Your task to perform on an android device: Empty the shopping cart on ebay. Add razer blade to the cart on ebay Image 0: 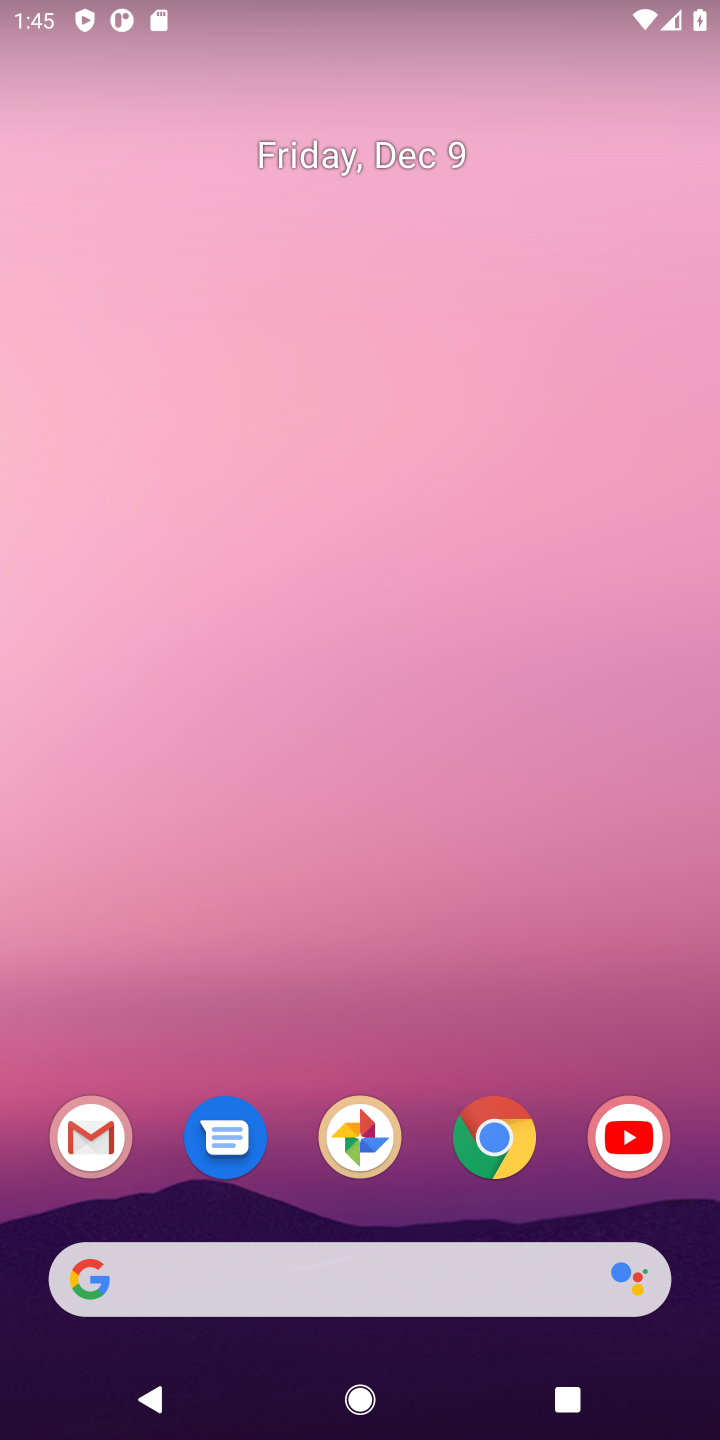
Step 0: task complete